Your task to perform on an android device: turn on notifications settings in the gmail app Image 0: 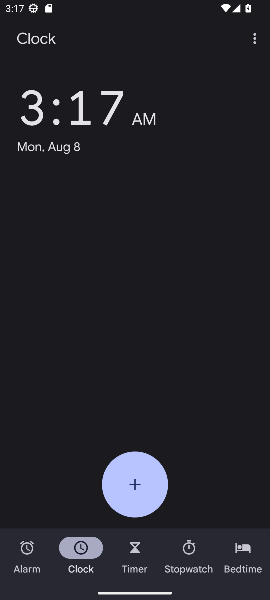
Step 0: drag from (158, 360) to (114, 64)
Your task to perform on an android device: turn on notifications settings in the gmail app Image 1: 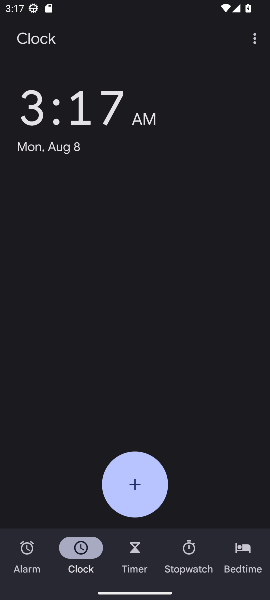
Step 1: press back button
Your task to perform on an android device: turn on notifications settings in the gmail app Image 2: 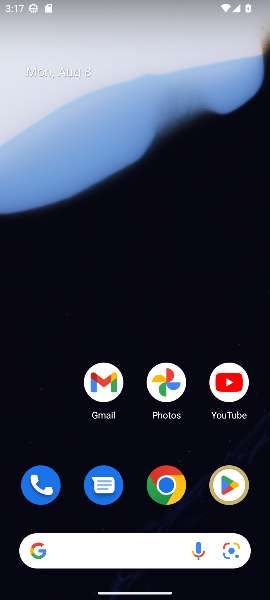
Step 2: drag from (201, 515) to (161, 133)
Your task to perform on an android device: turn on notifications settings in the gmail app Image 3: 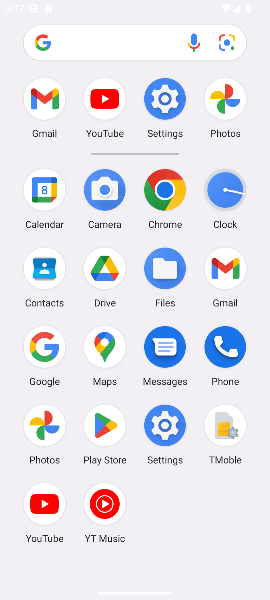
Step 3: drag from (177, 507) to (183, 137)
Your task to perform on an android device: turn on notifications settings in the gmail app Image 4: 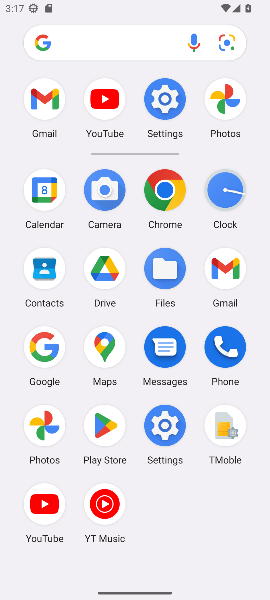
Step 4: click (230, 260)
Your task to perform on an android device: turn on notifications settings in the gmail app Image 5: 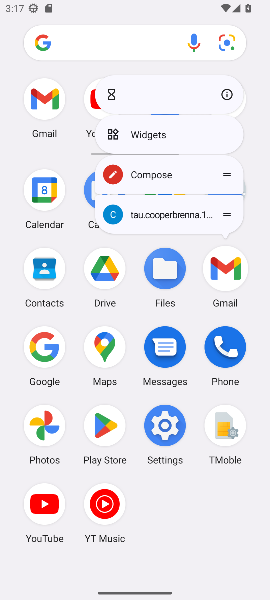
Step 5: click (230, 260)
Your task to perform on an android device: turn on notifications settings in the gmail app Image 6: 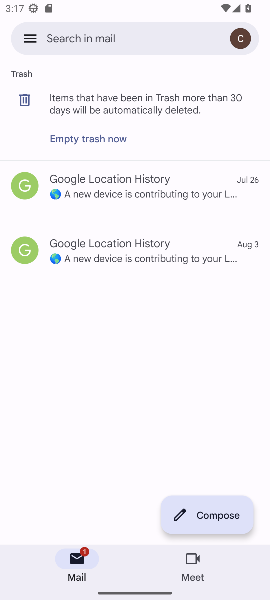
Step 6: press back button
Your task to perform on an android device: turn on notifications settings in the gmail app Image 7: 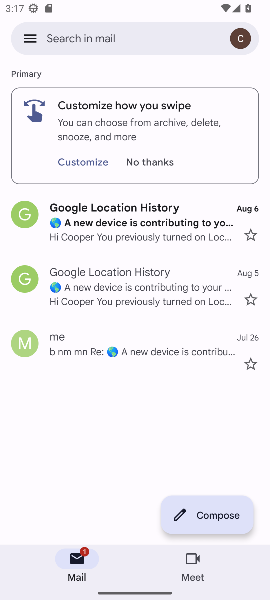
Step 7: press home button
Your task to perform on an android device: turn on notifications settings in the gmail app Image 8: 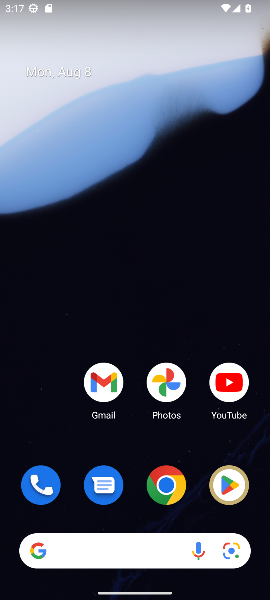
Step 8: drag from (134, 514) to (31, 18)
Your task to perform on an android device: turn on notifications settings in the gmail app Image 9: 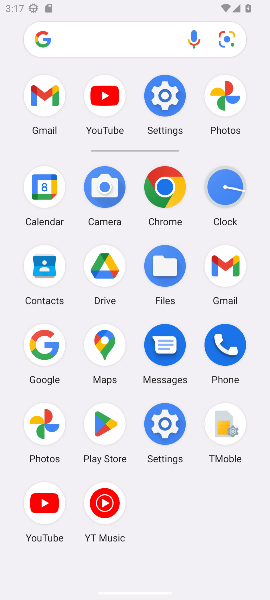
Step 9: drag from (113, 444) to (70, 39)
Your task to perform on an android device: turn on notifications settings in the gmail app Image 10: 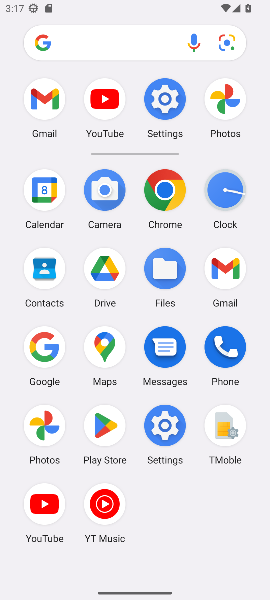
Step 10: click (217, 265)
Your task to perform on an android device: turn on notifications settings in the gmail app Image 11: 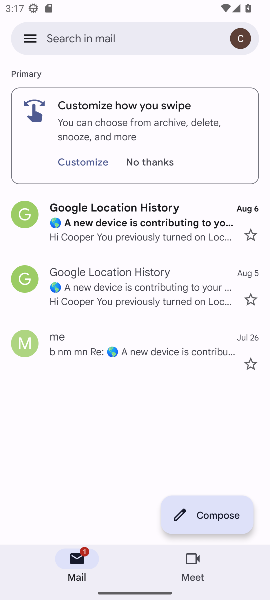
Step 11: click (31, 38)
Your task to perform on an android device: turn on notifications settings in the gmail app Image 12: 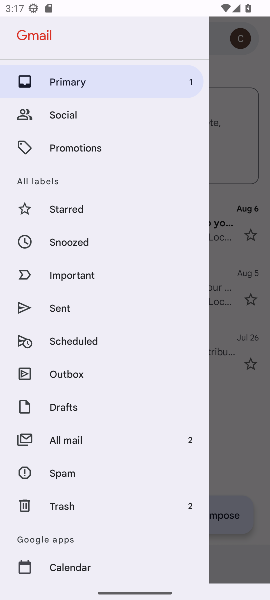
Step 12: click (224, 437)
Your task to perform on an android device: turn on notifications settings in the gmail app Image 13: 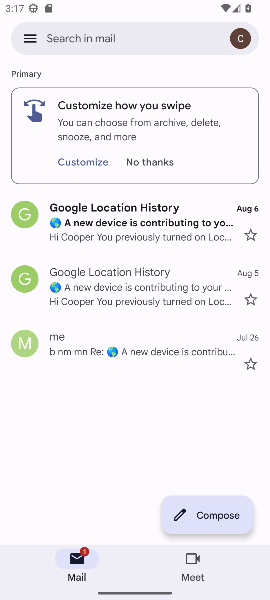
Step 13: click (229, 439)
Your task to perform on an android device: turn on notifications settings in the gmail app Image 14: 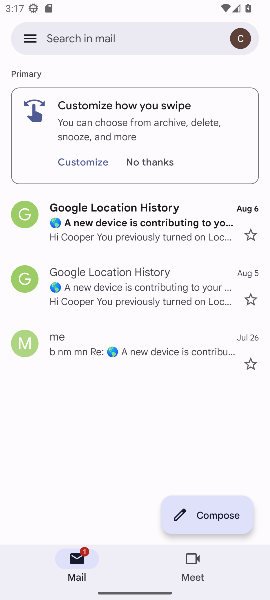
Step 14: click (30, 40)
Your task to perform on an android device: turn on notifications settings in the gmail app Image 15: 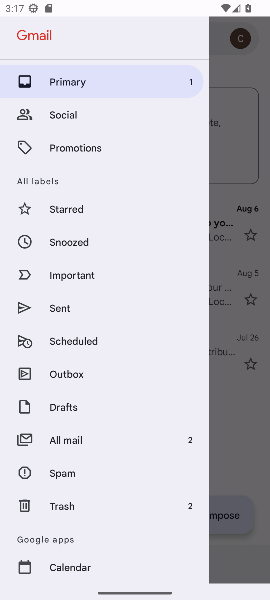
Step 15: drag from (80, 486) to (29, 198)
Your task to perform on an android device: turn on notifications settings in the gmail app Image 16: 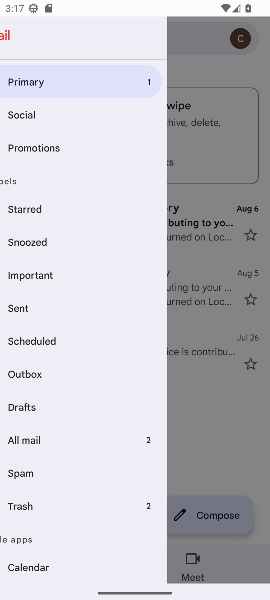
Step 16: drag from (72, 443) to (72, 256)
Your task to perform on an android device: turn on notifications settings in the gmail app Image 17: 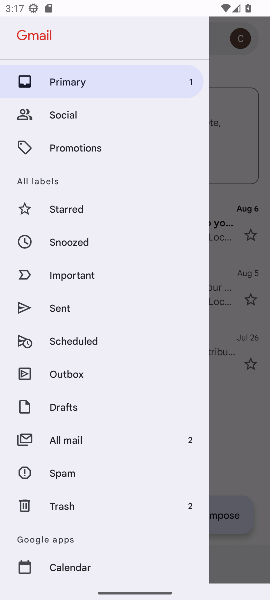
Step 17: drag from (91, 413) to (100, 226)
Your task to perform on an android device: turn on notifications settings in the gmail app Image 18: 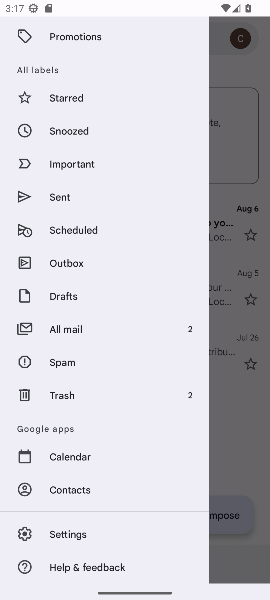
Step 18: drag from (100, 366) to (100, 174)
Your task to perform on an android device: turn on notifications settings in the gmail app Image 19: 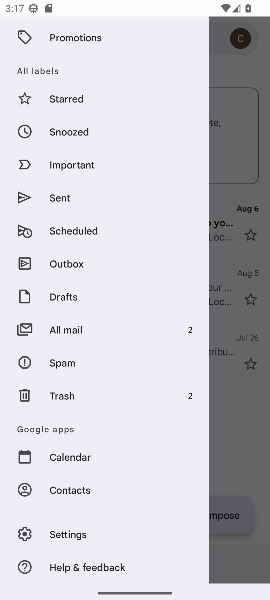
Step 19: click (68, 530)
Your task to perform on an android device: turn on notifications settings in the gmail app Image 20: 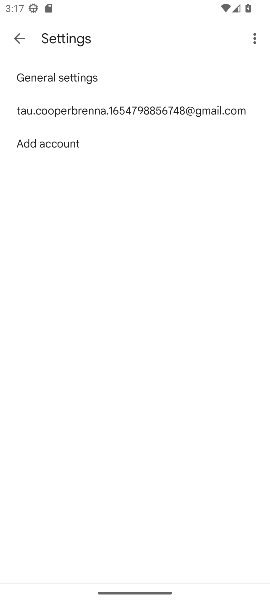
Step 20: click (56, 107)
Your task to perform on an android device: turn on notifications settings in the gmail app Image 21: 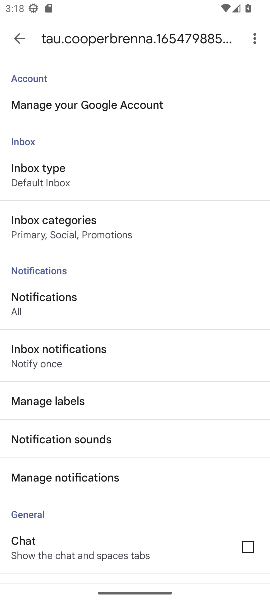
Step 21: drag from (129, 453) to (102, 179)
Your task to perform on an android device: turn on notifications settings in the gmail app Image 22: 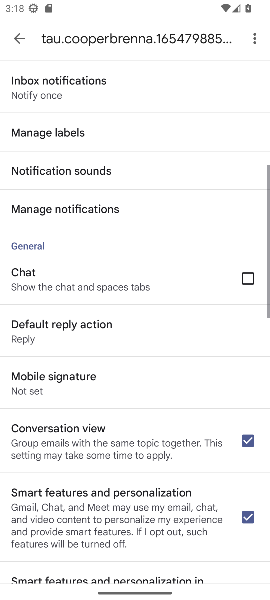
Step 22: drag from (116, 348) to (79, 150)
Your task to perform on an android device: turn on notifications settings in the gmail app Image 23: 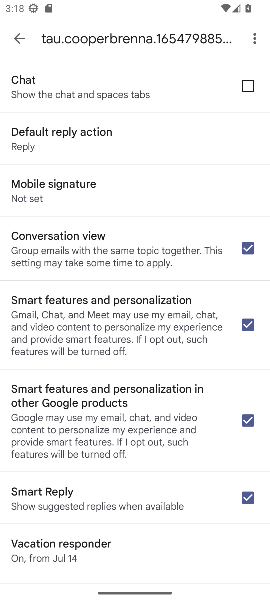
Step 23: drag from (66, 154) to (79, 391)
Your task to perform on an android device: turn on notifications settings in the gmail app Image 24: 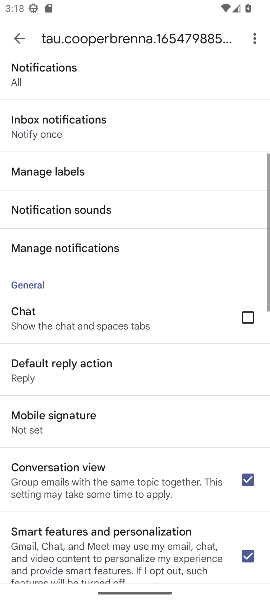
Step 24: drag from (79, 250) to (119, 482)
Your task to perform on an android device: turn on notifications settings in the gmail app Image 25: 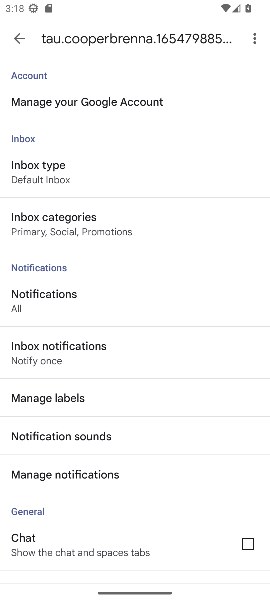
Step 25: drag from (101, 282) to (141, 511)
Your task to perform on an android device: turn on notifications settings in the gmail app Image 26: 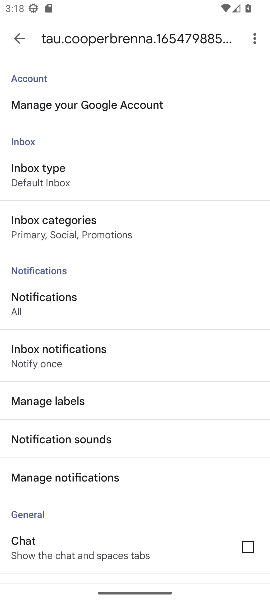
Step 26: click (30, 297)
Your task to perform on an android device: turn on notifications settings in the gmail app Image 27: 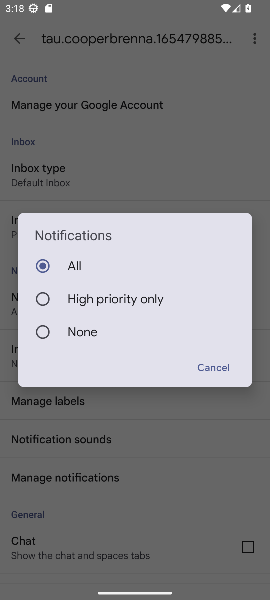
Step 27: click (193, 156)
Your task to perform on an android device: turn on notifications settings in the gmail app Image 28: 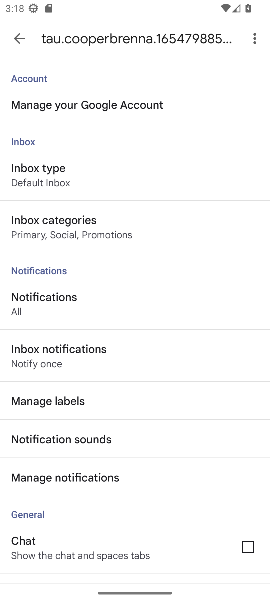
Step 28: task complete